Your task to perform on an android device: Go to location settings Image 0: 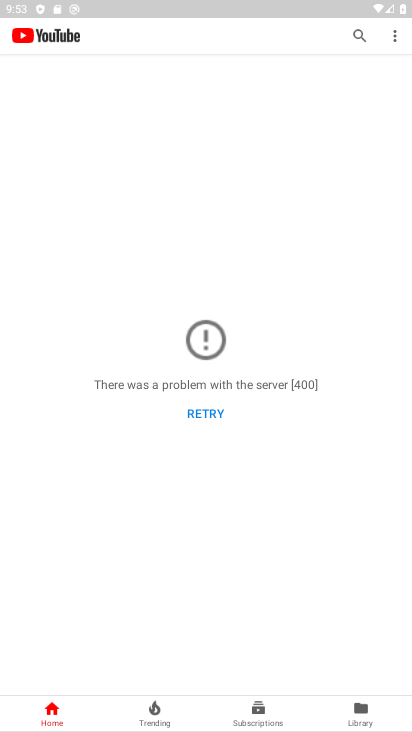
Step 0: press home button
Your task to perform on an android device: Go to location settings Image 1: 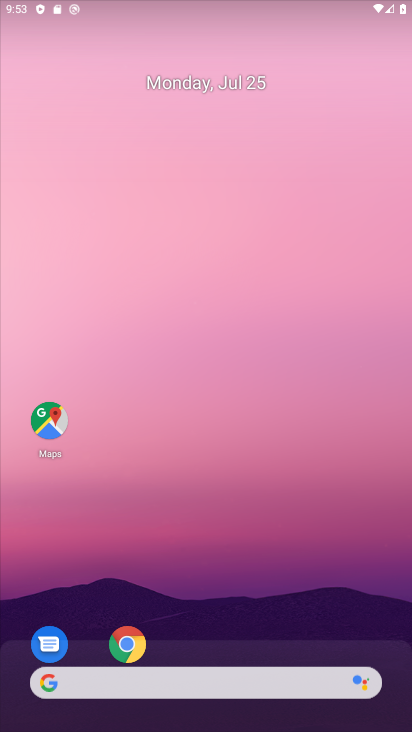
Step 1: drag from (260, 428) to (255, 55)
Your task to perform on an android device: Go to location settings Image 2: 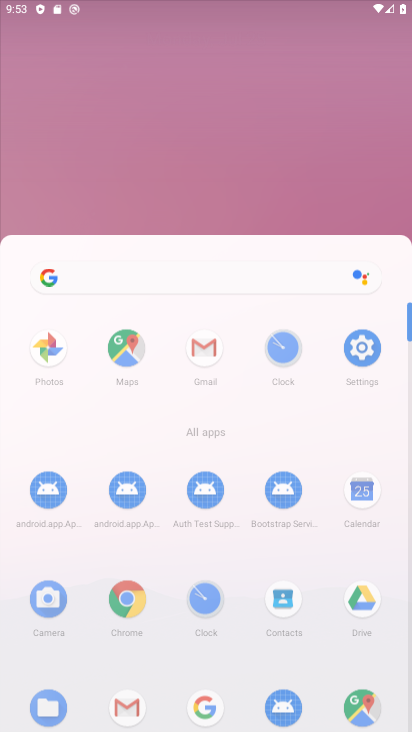
Step 2: drag from (238, 634) to (240, 164)
Your task to perform on an android device: Go to location settings Image 3: 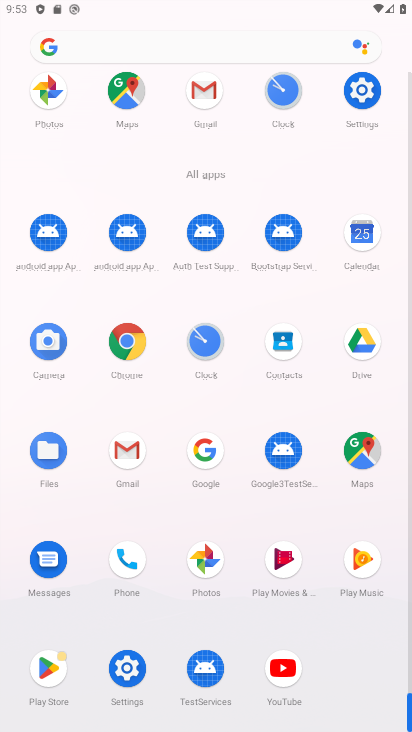
Step 3: click (131, 670)
Your task to perform on an android device: Go to location settings Image 4: 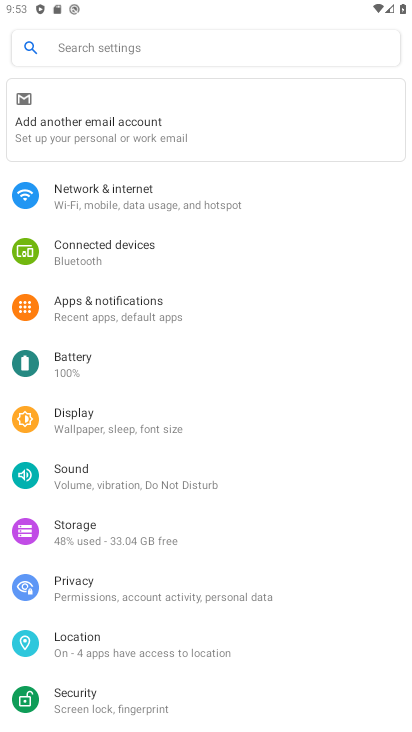
Step 4: click (102, 637)
Your task to perform on an android device: Go to location settings Image 5: 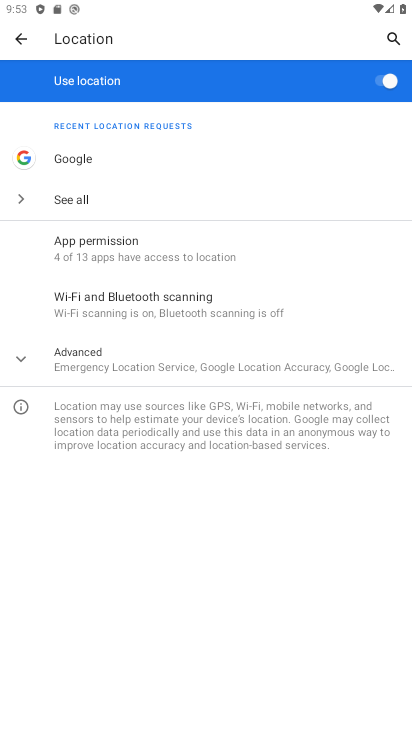
Step 5: task complete